Your task to perform on an android device: remove spam from my inbox in the gmail app Image 0: 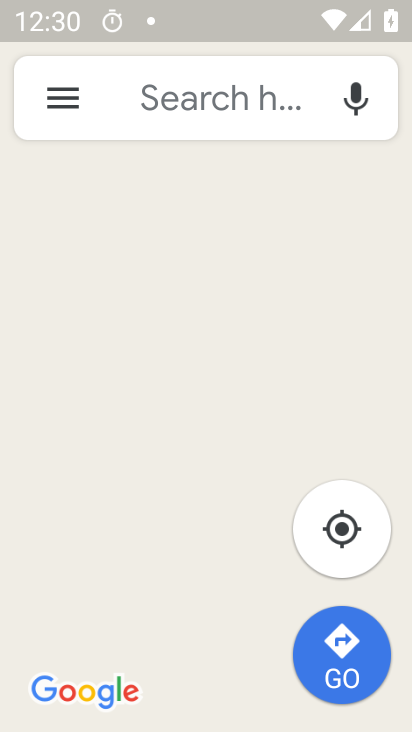
Step 0: drag from (333, 493) to (326, 86)
Your task to perform on an android device: remove spam from my inbox in the gmail app Image 1: 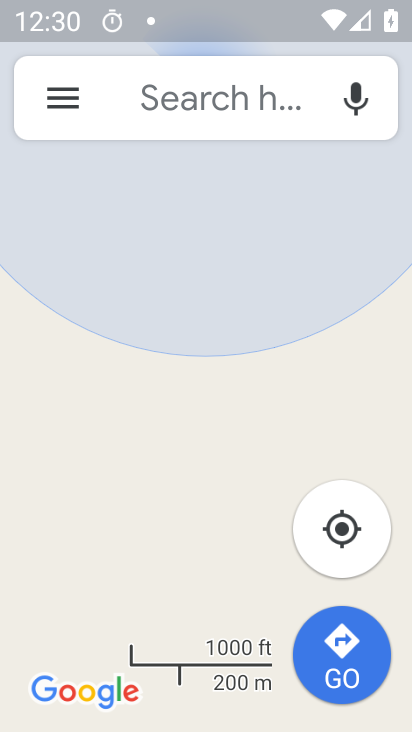
Step 1: press home button
Your task to perform on an android device: remove spam from my inbox in the gmail app Image 2: 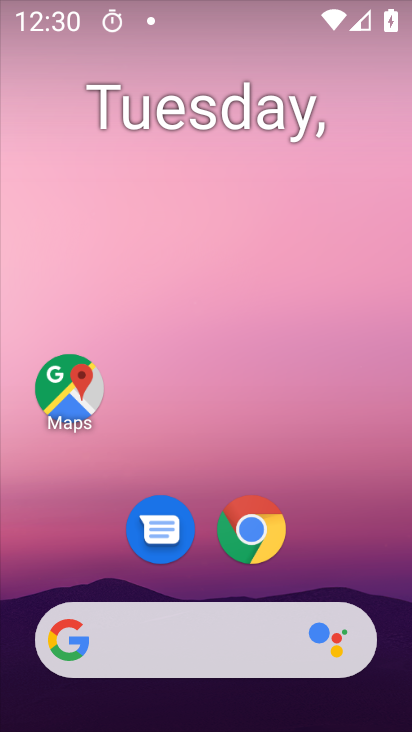
Step 2: drag from (353, 424) to (314, 48)
Your task to perform on an android device: remove spam from my inbox in the gmail app Image 3: 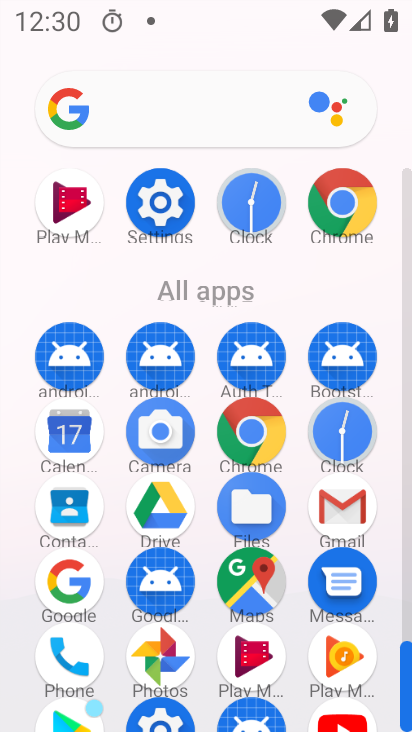
Step 3: click (341, 500)
Your task to perform on an android device: remove spam from my inbox in the gmail app Image 4: 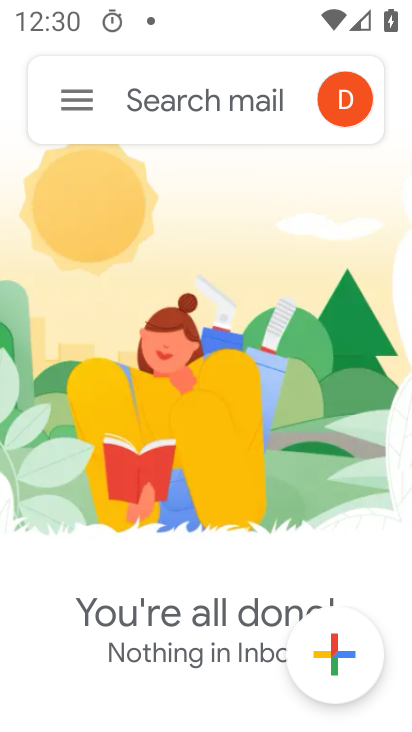
Step 4: click (67, 108)
Your task to perform on an android device: remove spam from my inbox in the gmail app Image 5: 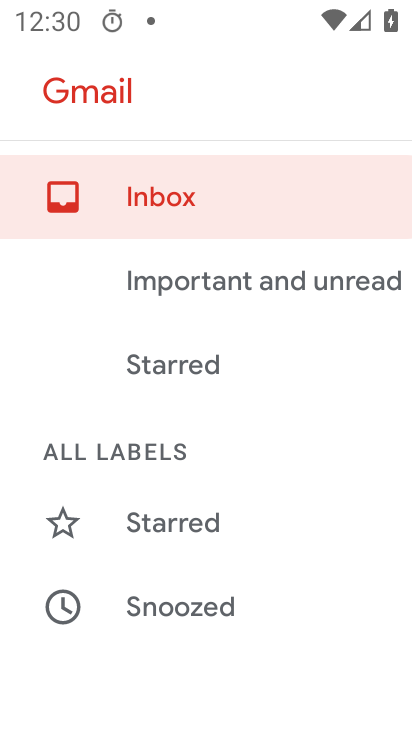
Step 5: drag from (203, 526) to (219, 82)
Your task to perform on an android device: remove spam from my inbox in the gmail app Image 6: 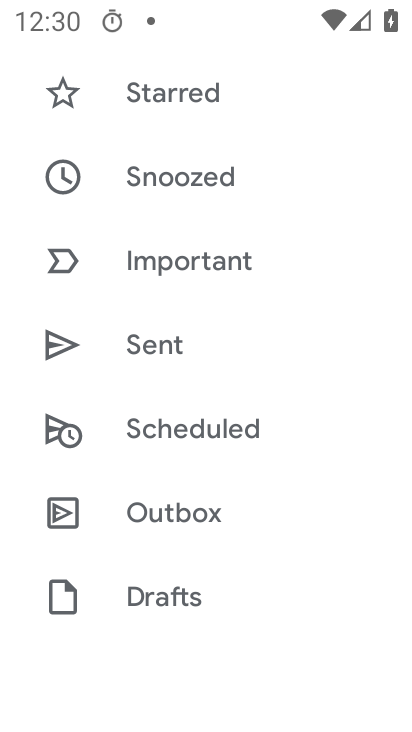
Step 6: drag from (180, 566) to (240, 125)
Your task to perform on an android device: remove spam from my inbox in the gmail app Image 7: 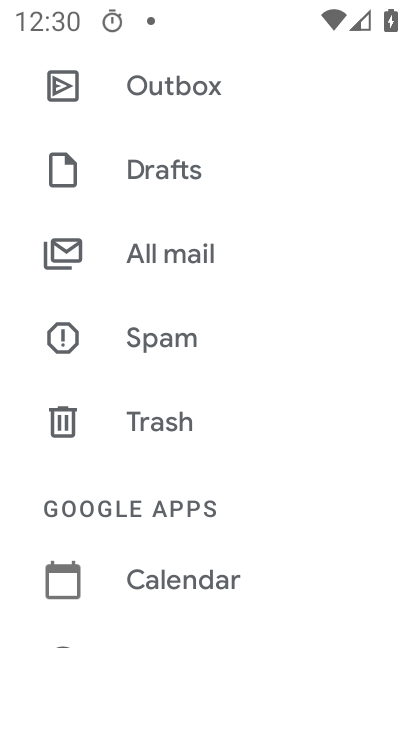
Step 7: click (187, 327)
Your task to perform on an android device: remove spam from my inbox in the gmail app Image 8: 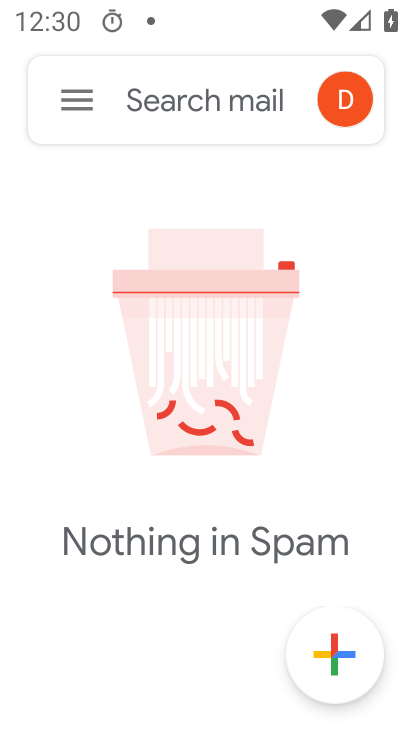
Step 8: task complete